Your task to perform on an android device: see sites visited before in the chrome app Image 0: 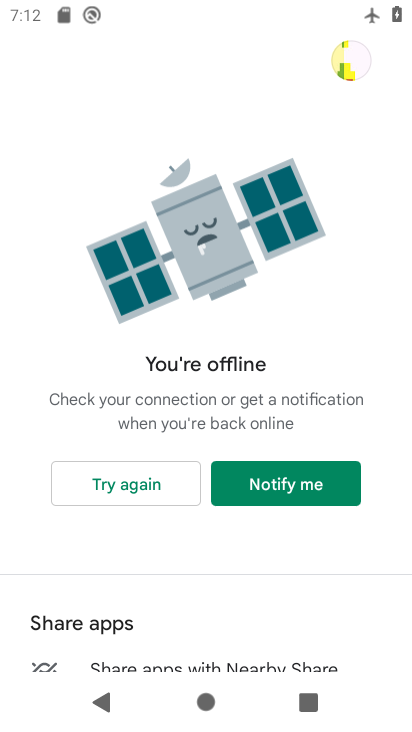
Step 0: press home button
Your task to perform on an android device: see sites visited before in the chrome app Image 1: 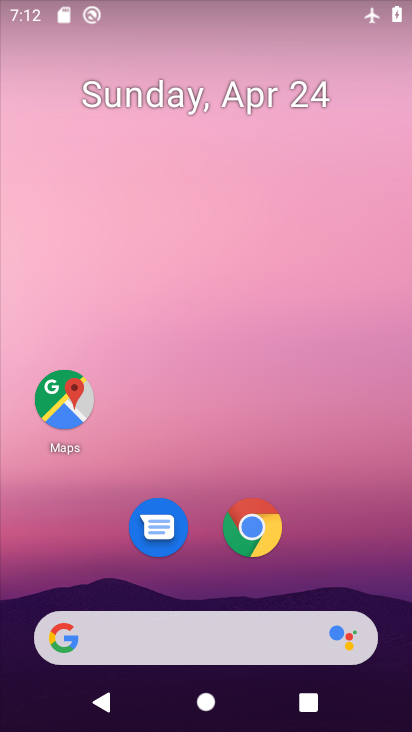
Step 1: drag from (350, 589) to (258, 6)
Your task to perform on an android device: see sites visited before in the chrome app Image 2: 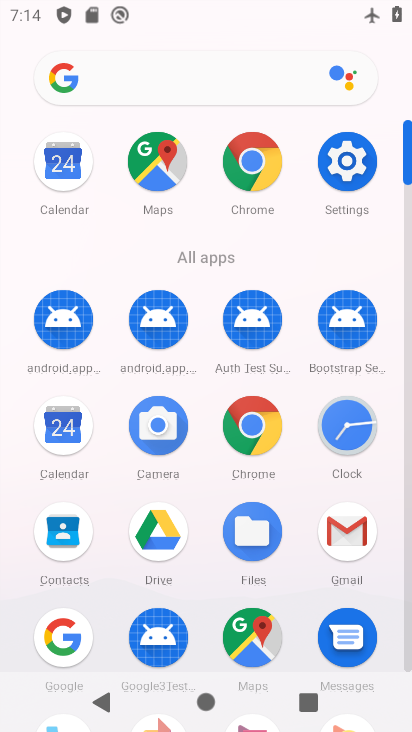
Step 2: click (241, 420)
Your task to perform on an android device: see sites visited before in the chrome app Image 3: 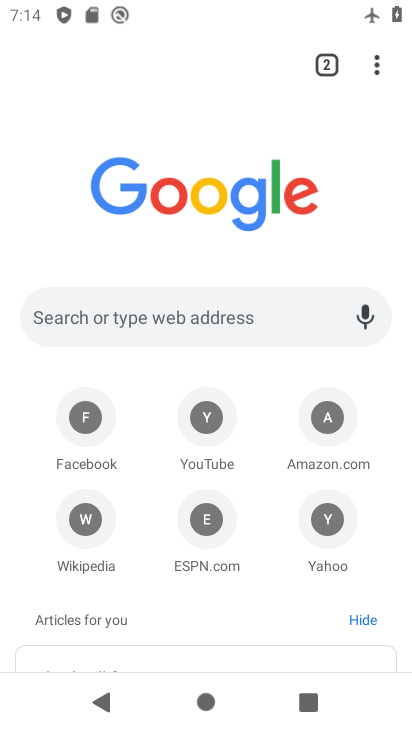
Step 3: click (377, 58)
Your task to perform on an android device: see sites visited before in the chrome app Image 4: 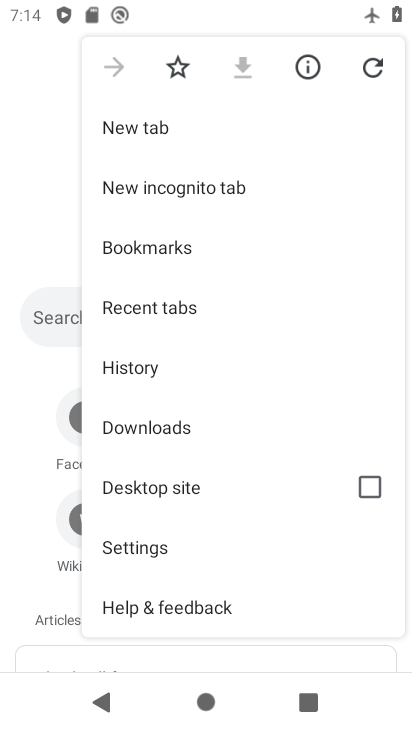
Step 4: click (208, 372)
Your task to perform on an android device: see sites visited before in the chrome app Image 5: 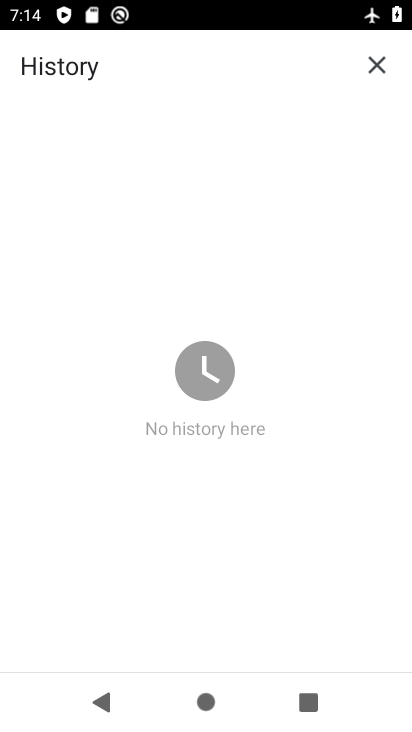
Step 5: task complete